Your task to perform on an android device: open app "PlayWell" Image 0: 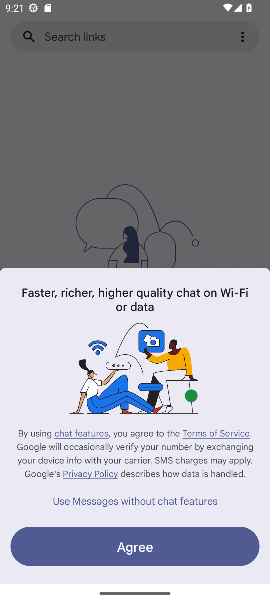
Step 0: click (181, 205)
Your task to perform on an android device: open app "PlayWell" Image 1: 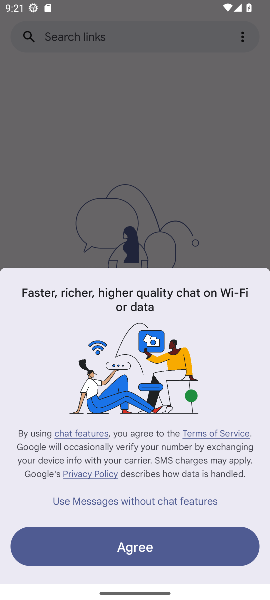
Step 1: press home button
Your task to perform on an android device: open app "PlayWell" Image 2: 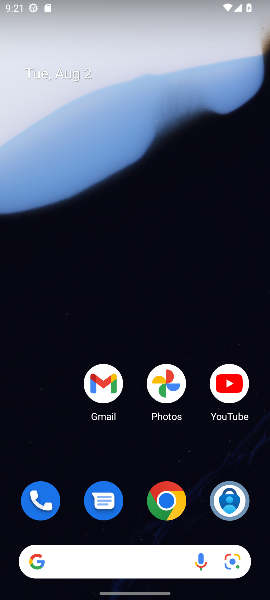
Step 2: drag from (120, 484) to (162, 154)
Your task to perform on an android device: open app "PlayWell" Image 3: 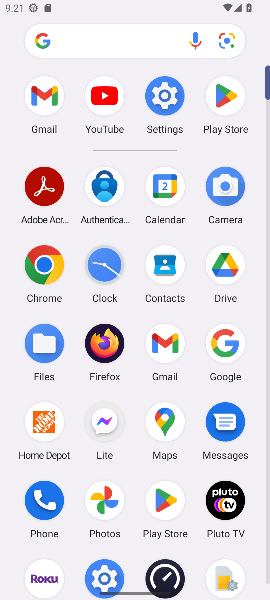
Step 3: click (227, 97)
Your task to perform on an android device: open app "PlayWell" Image 4: 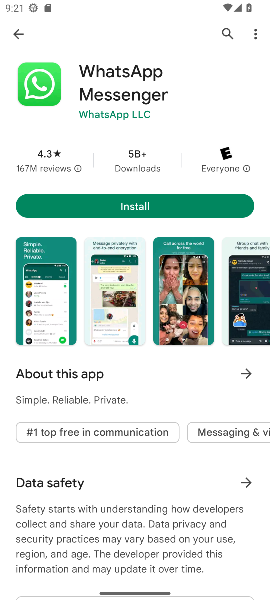
Step 4: click (222, 32)
Your task to perform on an android device: open app "PlayWell" Image 5: 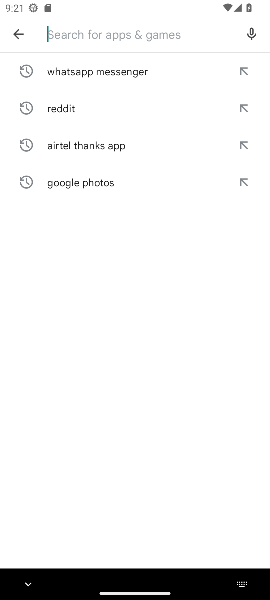
Step 5: type "PlayWell"
Your task to perform on an android device: open app "PlayWell" Image 6: 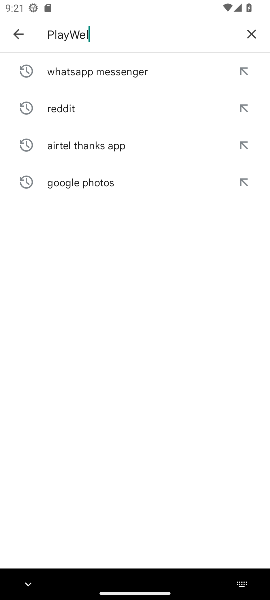
Step 6: type ""
Your task to perform on an android device: open app "PlayWell" Image 7: 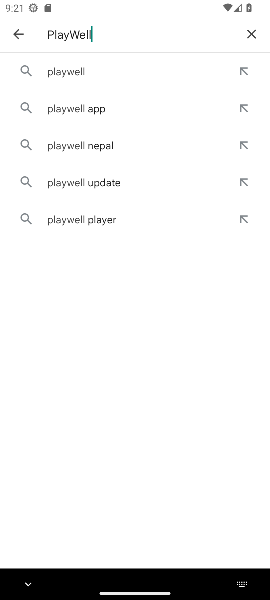
Step 7: click (78, 59)
Your task to perform on an android device: open app "PlayWell" Image 8: 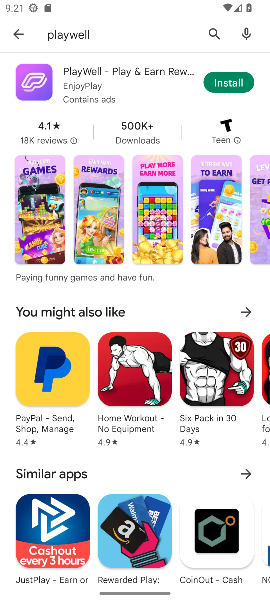
Step 8: click (62, 68)
Your task to perform on an android device: open app "PlayWell" Image 9: 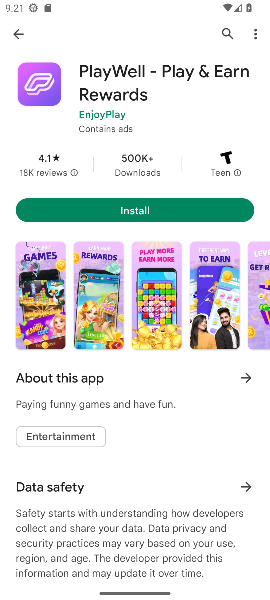
Step 9: drag from (108, 95) to (165, 406)
Your task to perform on an android device: open app "PlayWell" Image 10: 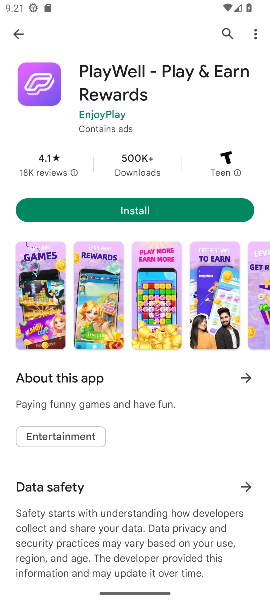
Step 10: click (167, 82)
Your task to perform on an android device: open app "PlayWell" Image 11: 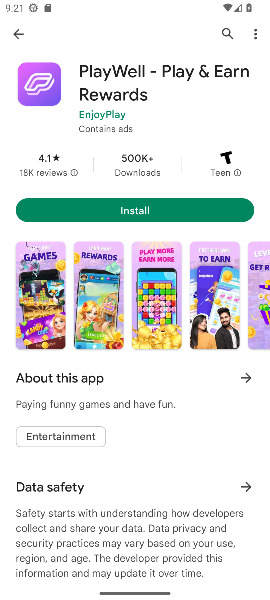
Step 11: task complete